Your task to perform on an android device: toggle improve location accuracy Image 0: 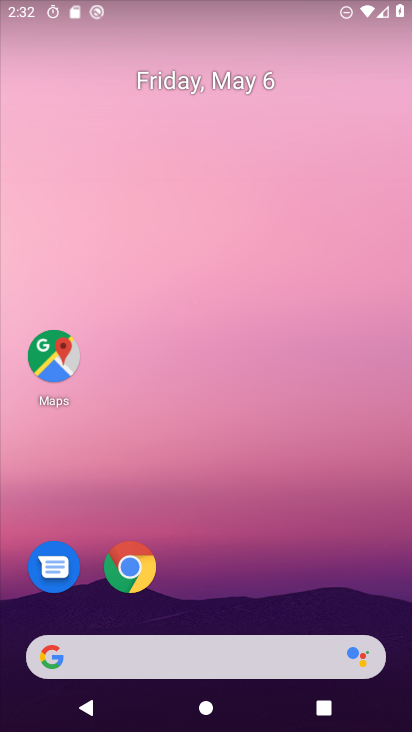
Step 0: drag from (278, 680) to (315, 224)
Your task to perform on an android device: toggle improve location accuracy Image 1: 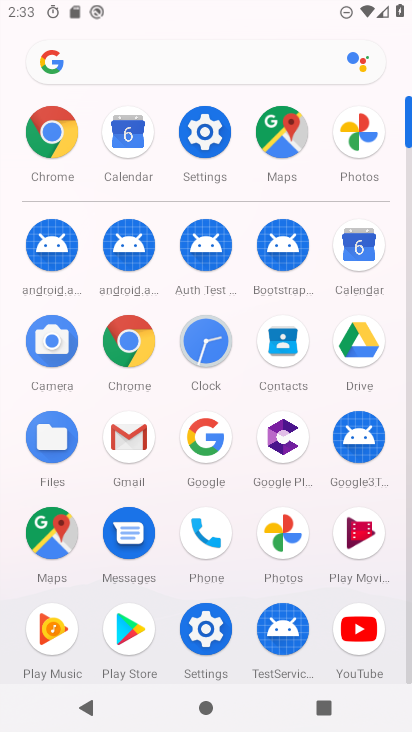
Step 1: click (206, 144)
Your task to perform on an android device: toggle improve location accuracy Image 2: 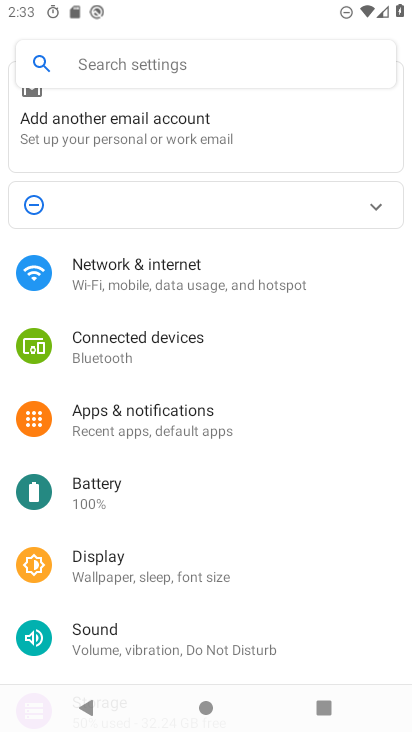
Step 2: click (167, 70)
Your task to perform on an android device: toggle improve location accuracy Image 3: 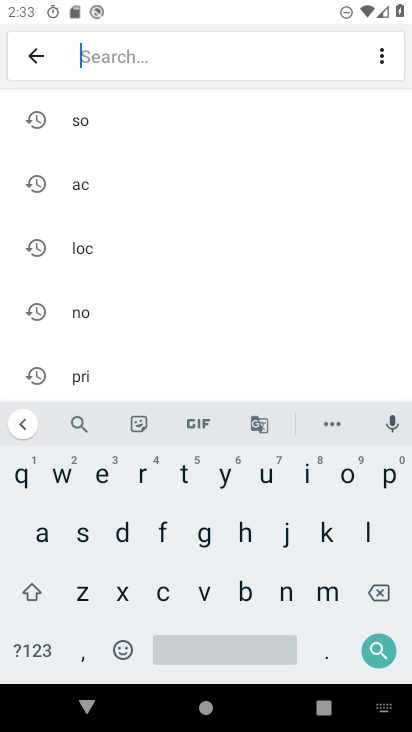
Step 3: click (88, 249)
Your task to perform on an android device: toggle improve location accuracy Image 4: 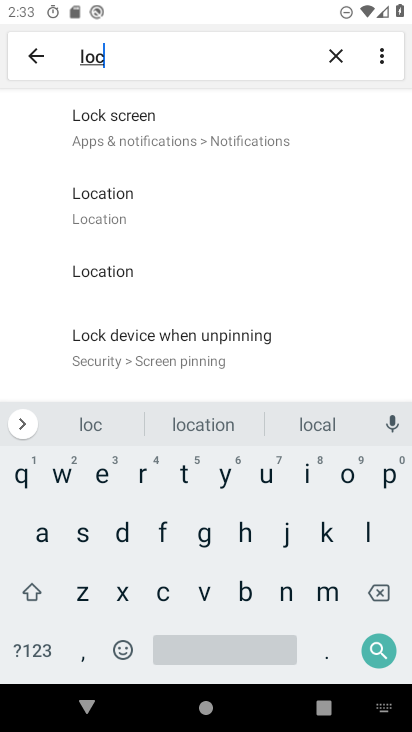
Step 4: click (97, 225)
Your task to perform on an android device: toggle improve location accuracy Image 5: 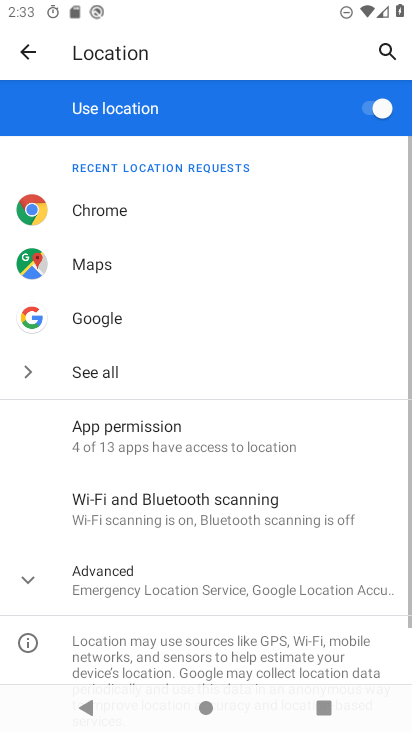
Step 5: click (211, 590)
Your task to perform on an android device: toggle improve location accuracy Image 6: 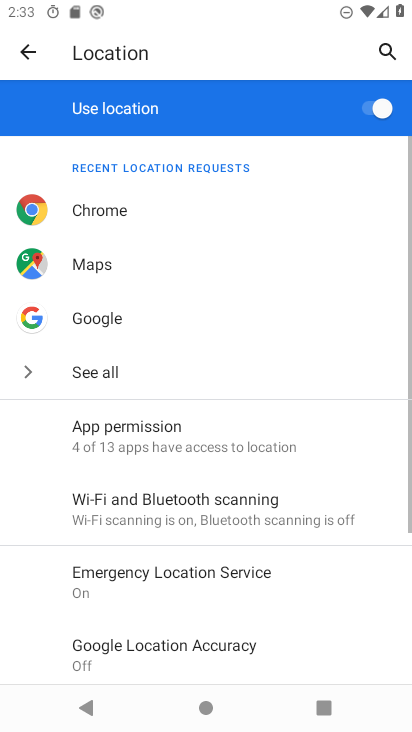
Step 6: drag from (232, 548) to (272, 239)
Your task to perform on an android device: toggle improve location accuracy Image 7: 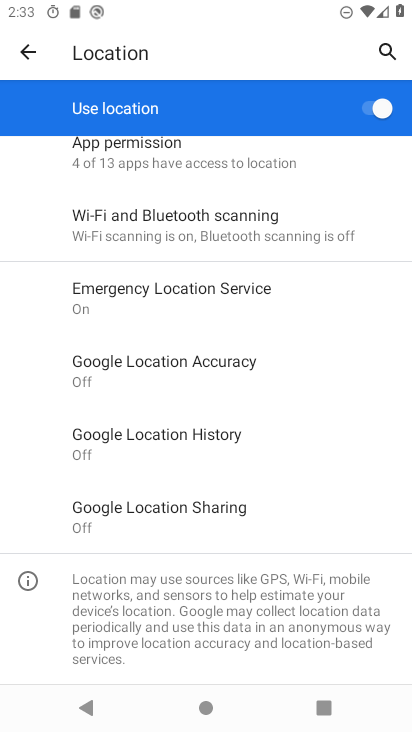
Step 7: click (218, 363)
Your task to perform on an android device: toggle improve location accuracy Image 8: 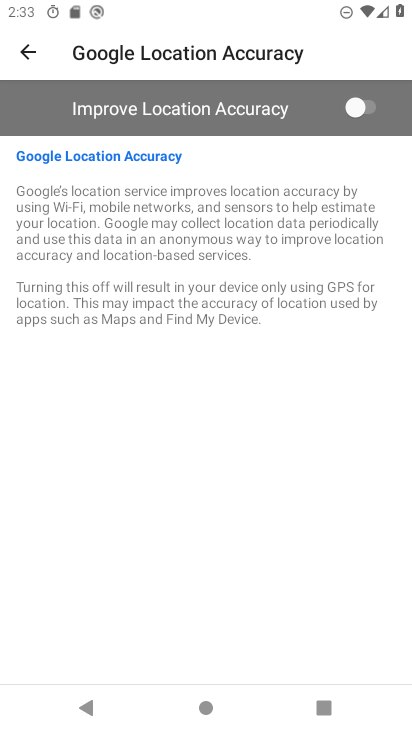
Step 8: task complete